Your task to perform on an android device: check storage Image 0: 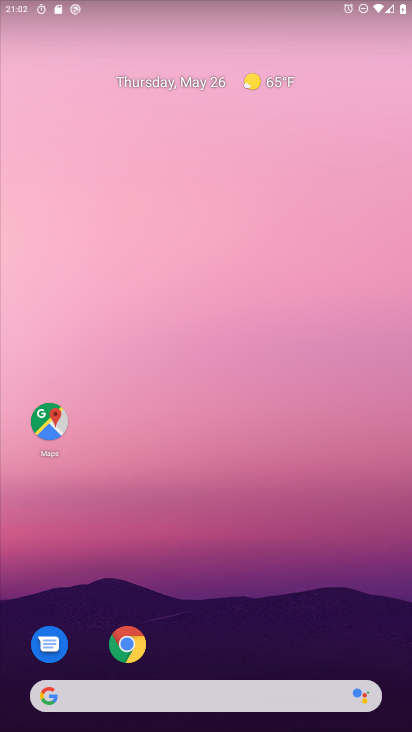
Step 0: drag from (204, 661) to (226, 105)
Your task to perform on an android device: check storage Image 1: 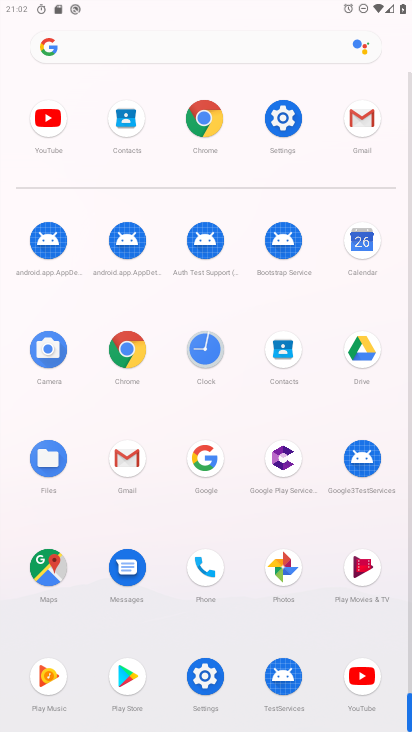
Step 1: click (277, 106)
Your task to perform on an android device: check storage Image 2: 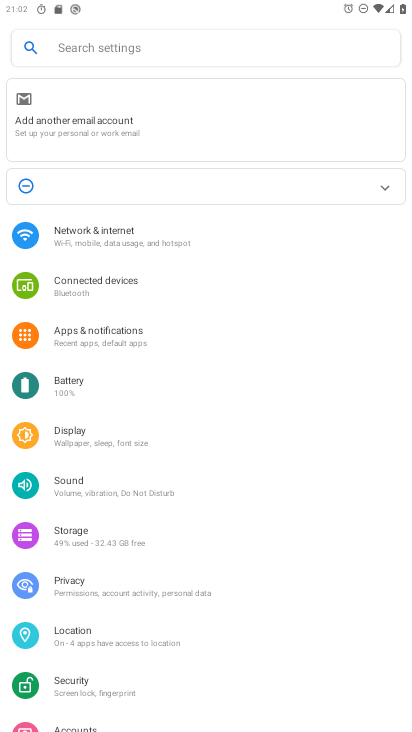
Step 2: drag from (201, 615) to (297, 251)
Your task to perform on an android device: check storage Image 3: 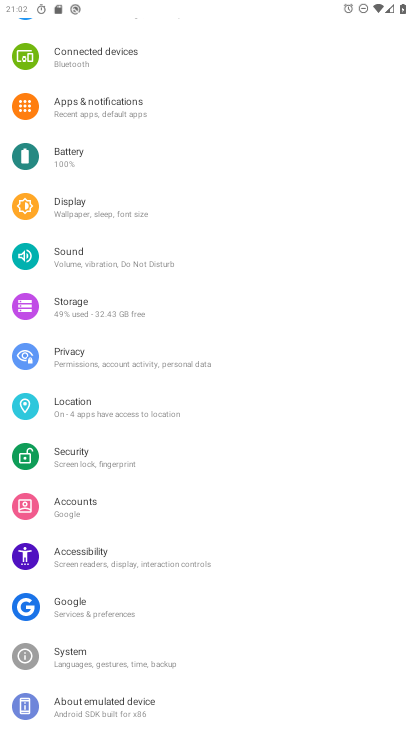
Step 3: click (102, 311)
Your task to perform on an android device: check storage Image 4: 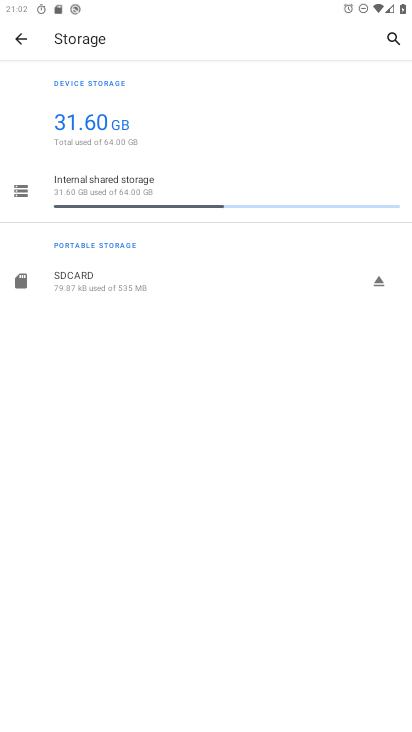
Step 4: task complete